Your task to perform on an android device: toggle wifi Image 0: 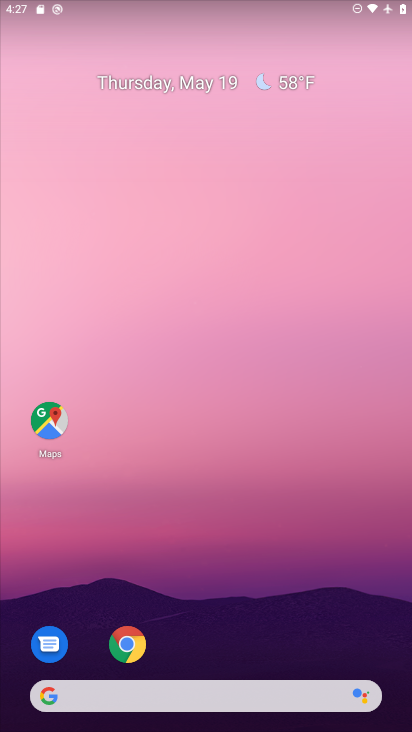
Step 0: drag from (269, 506) to (268, 18)
Your task to perform on an android device: toggle wifi Image 1: 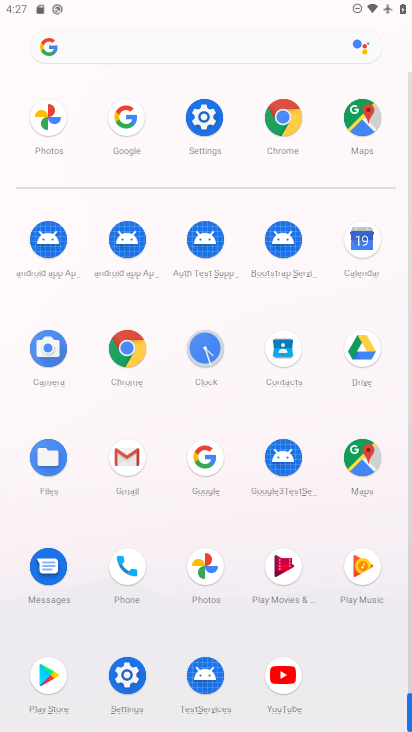
Step 1: drag from (12, 587) to (17, 232)
Your task to perform on an android device: toggle wifi Image 2: 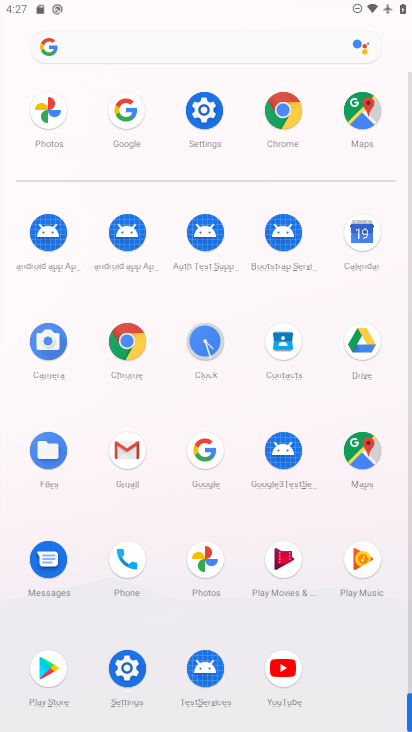
Step 2: click (127, 661)
Your task to perform on an android device: toggle wifi Image 3: 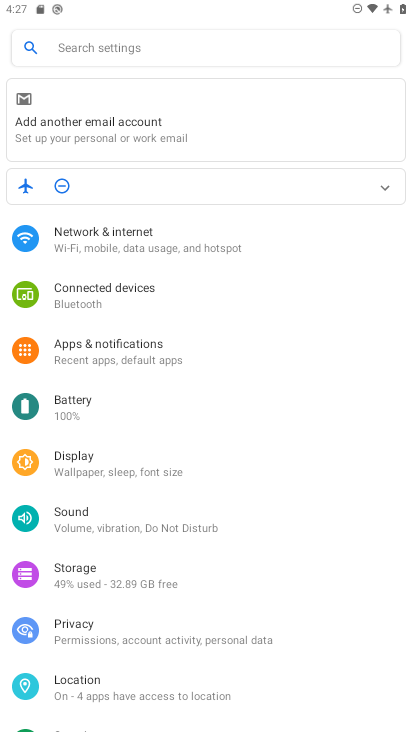
Step 3: drag from (304, 596) to (313, 308)
Your task to perform on an android device: toggle wifi Image 4: 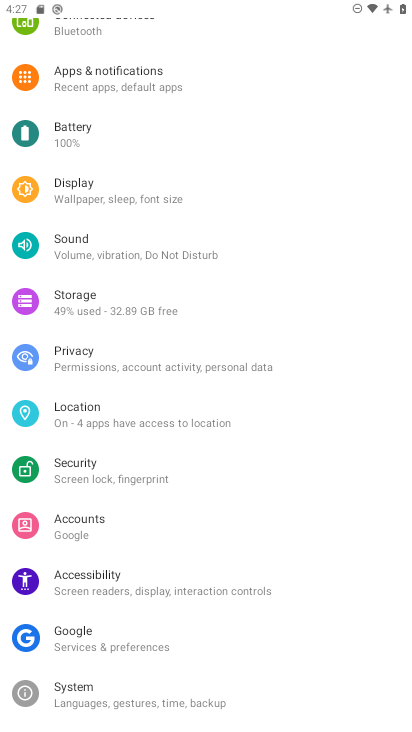
Step 4: drag from (283, 130) to (311, 404)
Your task to perform on an android device: toggle wifi Image 5: 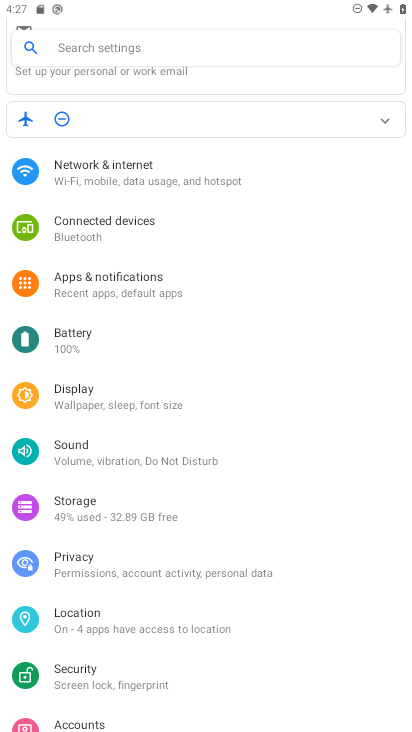
Step 5: click (140, 169)
Your task to perform on an android device: toggle wifi Image 6: 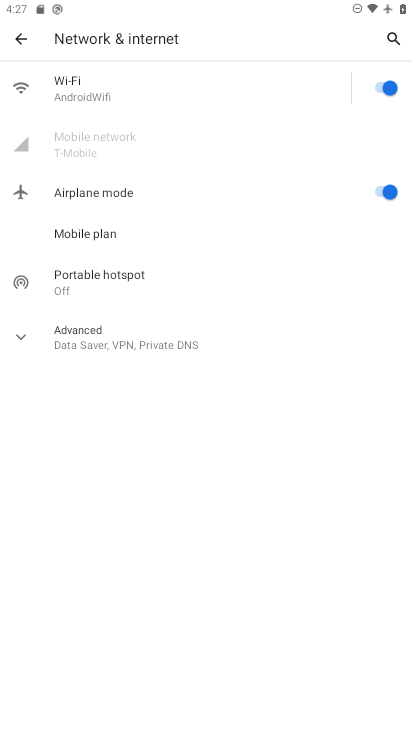
Step 6: click (23, 329)
Your task to perform on an android device: toggle wifi Image 7: 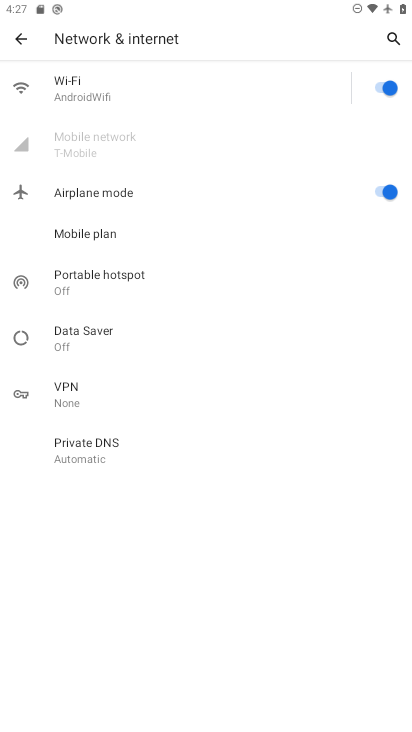
Step 7: click (392, 93)
Your task to perform on an android device: toggle wifi Image 8: 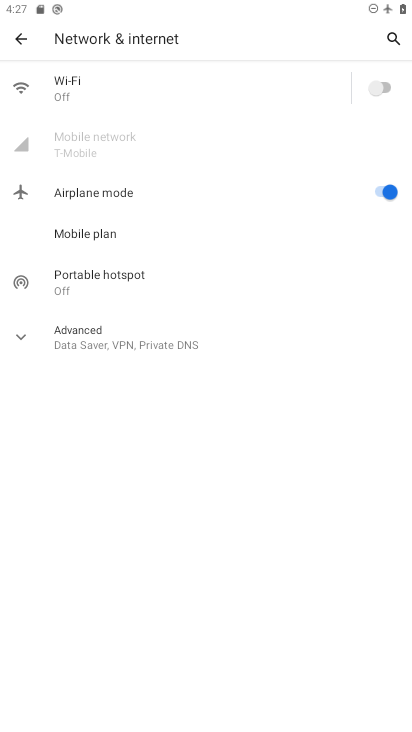
Step 8: task complete